Your task to perform on an android device: Search for razer thresher on target, select the first entry, add it to the cart, then select checkout. Image 0: 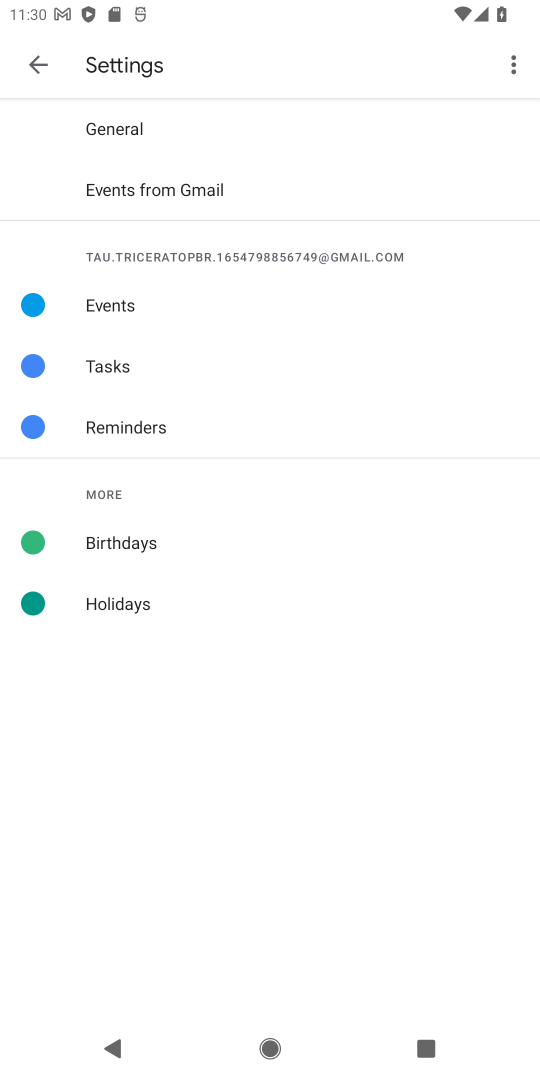
Step 0: press home button
Your task to perform on an android device: Search for razer thresher on target, select the first entry, add it to the cart, then select checkout. Image 1: 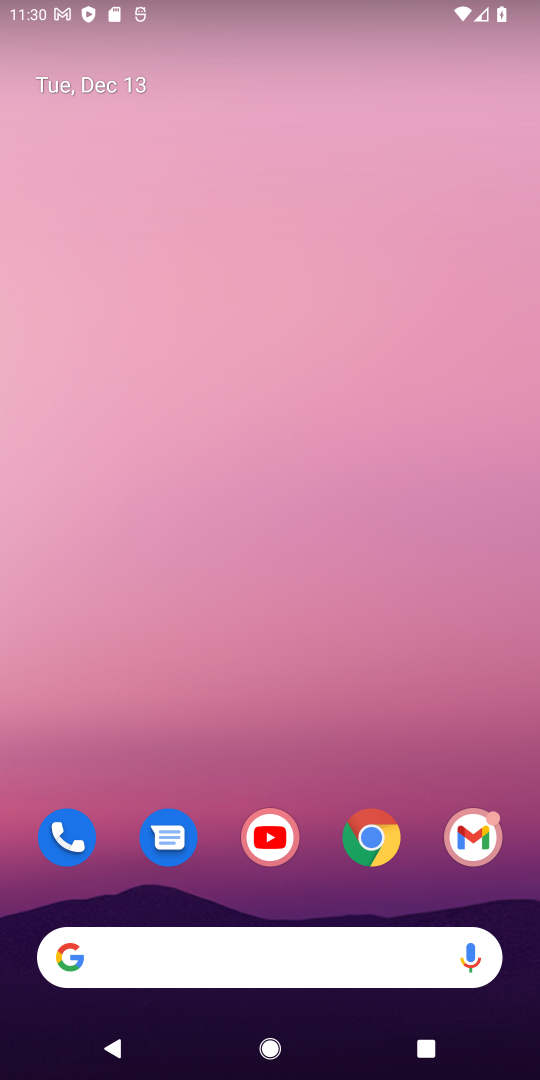
Step 1: click (365, 858)
Your task to perform on an android device: Search for razer thresher on target, select the first entry, add it to the cart, then select checkout. Image 2: 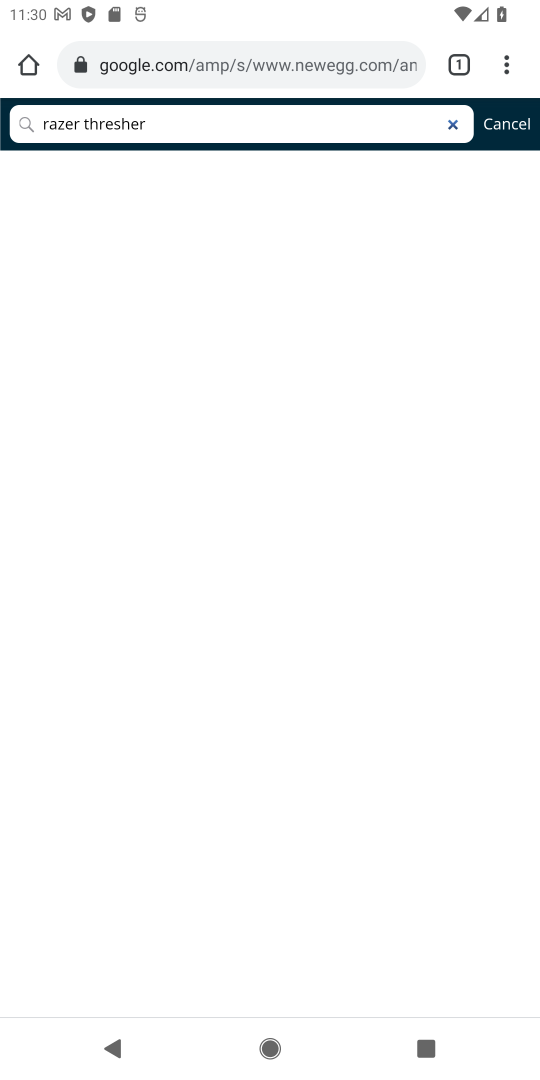
Step 2: click (459, 130)
Your task to perform on an android device: Search for razer thresher on target, select the first entry, add it to the cart, then select checkout. Image 3: 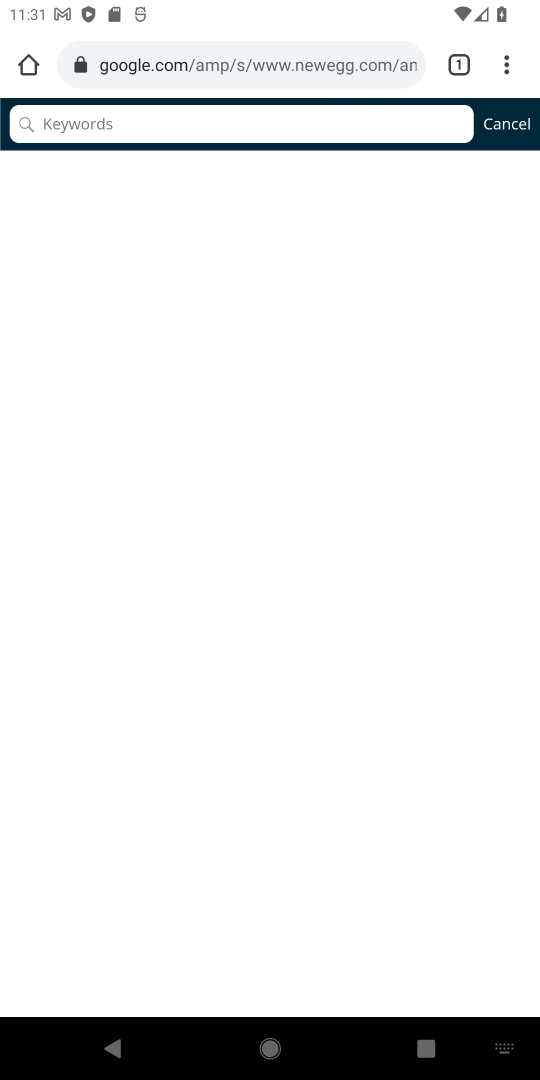
Step 3: type "razer thresher"
Your task to perform on an android device: Search for razer thresher on target, select the first entry, add it to the cart, then select checkout. Image 4: 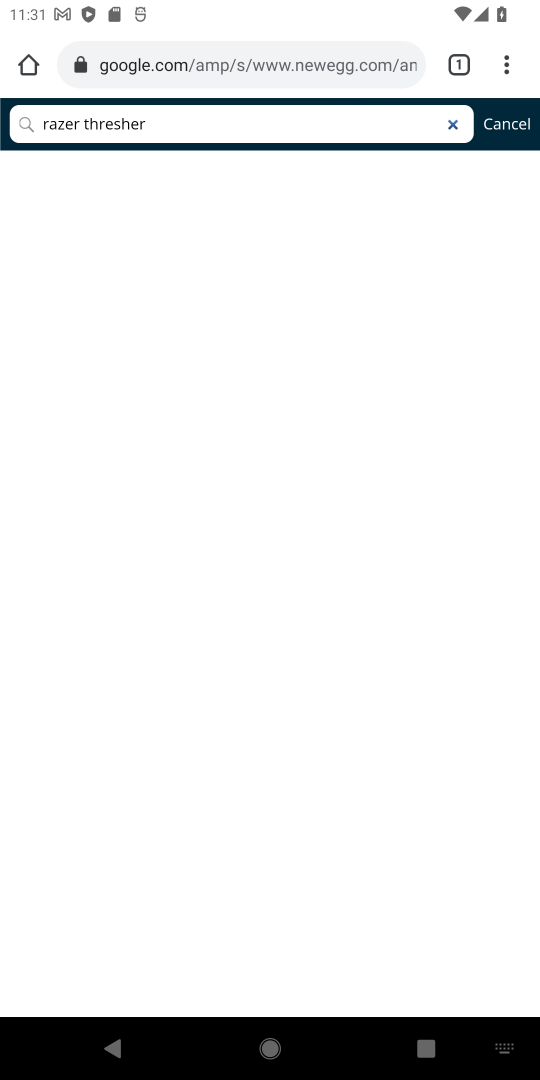
Step 4: task complete